Your task to perform on an android device: Play the last video I watched on Youtube Image 0: 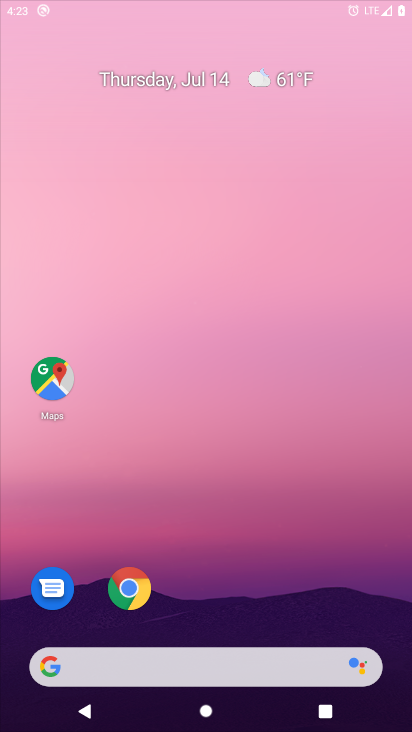
Step 0: press home button
Your task to perform on an android device: Play the last video I watched on Youtube Image 1: 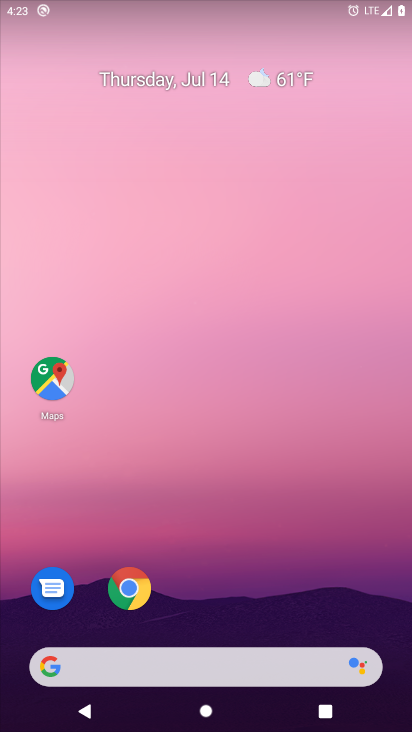
Step 1: drag from (246, 632) to (219, 14)
Your task to perform on an android device: Play the last video I watched on Youtube Image 2: 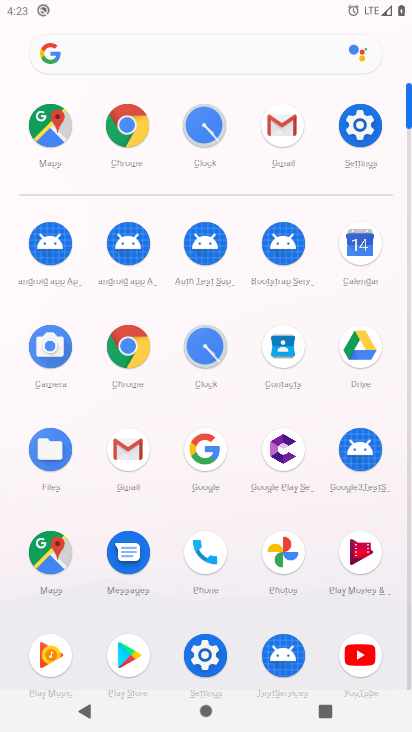
Step 2: click (357, 665)
Your task to perform on an android device: Play the last video I watched on Youtube Image 3: 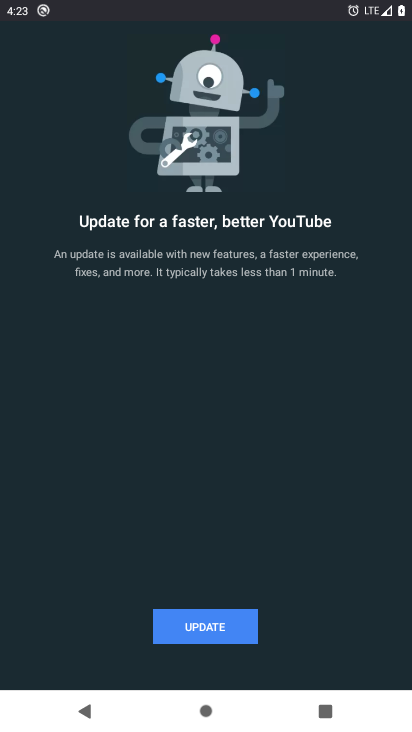
Step 3: click (198, 618)
Your task to perform on an android device: Play the last video I watched on Youtube Image 4: 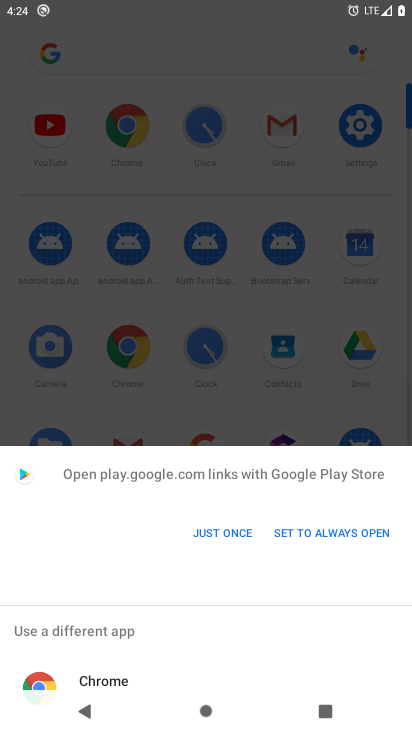
Step 4: click (222, 535)
Your task to perform on an android device: Play the last video I watched on Youtube Image 5: 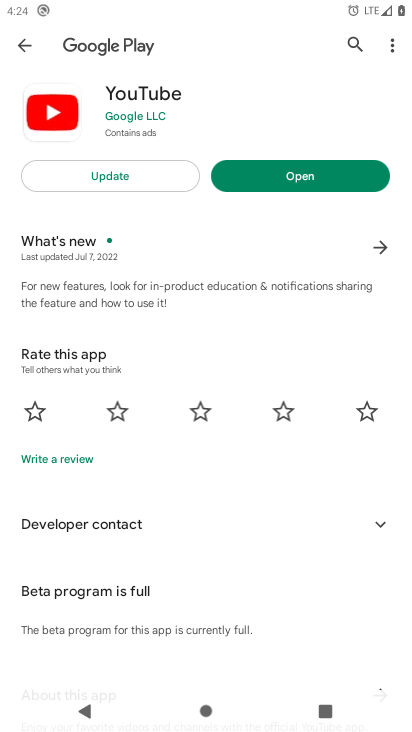
Step 5: click (93, 176)
Your task to perform on an android device: Play the last video I watched on Youtube Image 6: 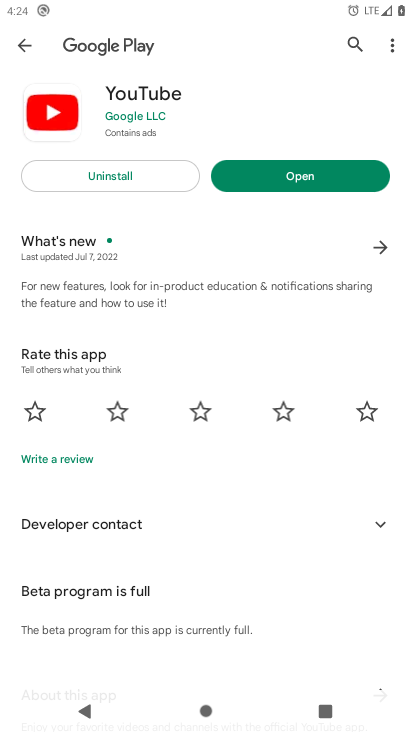
Step 6: click (324, 182)
Your task to perform on an android device: Play the last video I watched on Youtube Image 7: 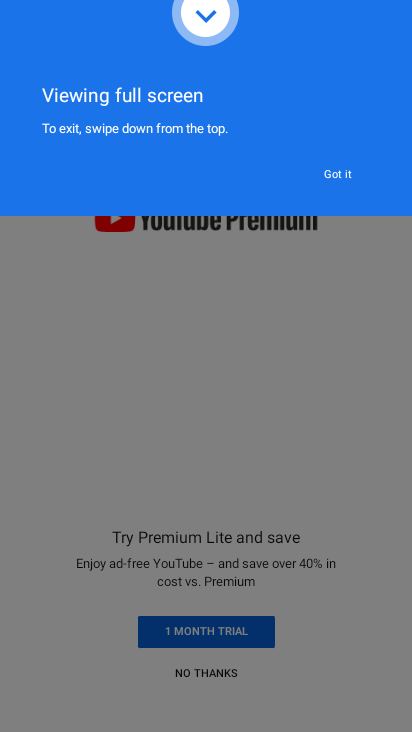
Step 7: click (214, 671)
Your task to perform on an android device: Play the last video I watched on Youtube Image 8: 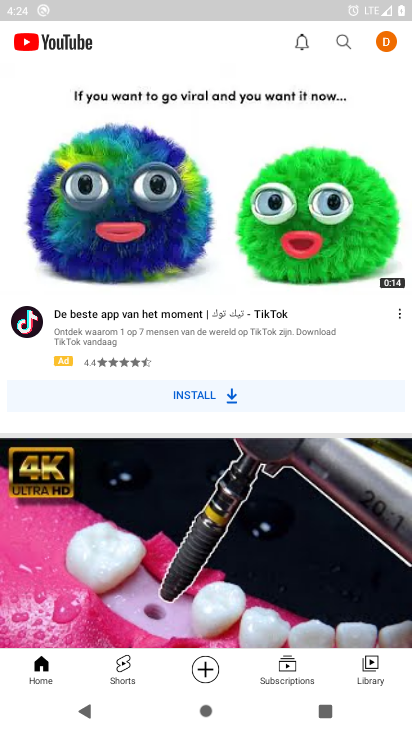
Step 8: click (375, 669)
Your task to perform on an android device: Play the last video I watched on Youtube Image 9: 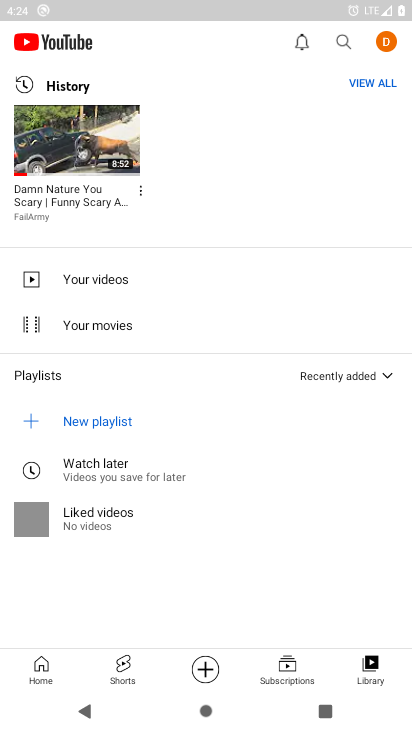
Step 9: click (70, 145)
Your task to perform on an android device: Play the last video I watched on Youtube Image 10: 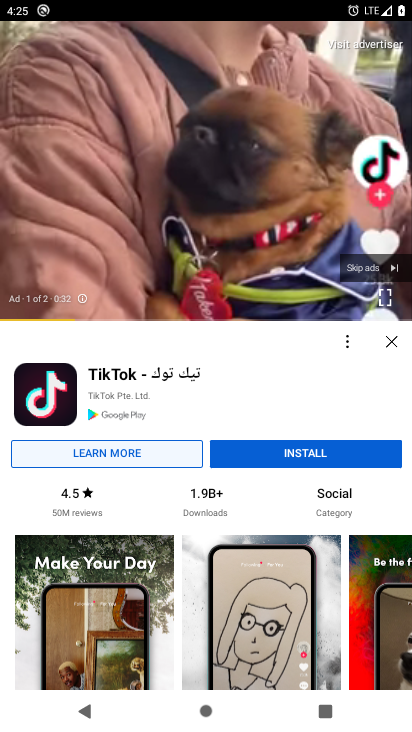
Step 10: click (365, 268)
Your task to perform on an android device: Play the last video I watched on Youtube Image 11: 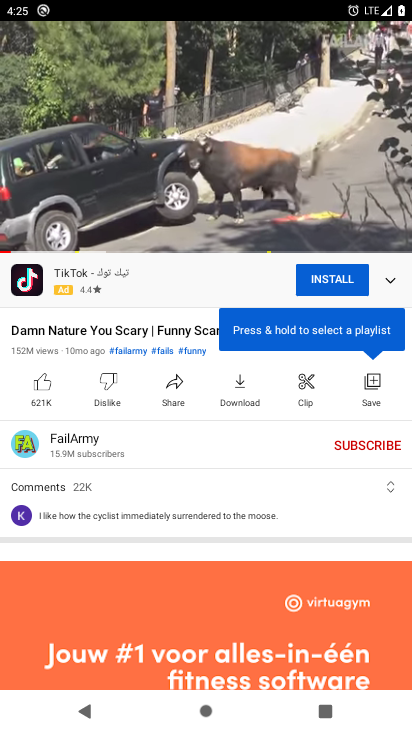
Step 11: task complete